Your task to perform on an android device: Add "logitech g933" to the cart on ebay.com, then select checkout. Image 0: 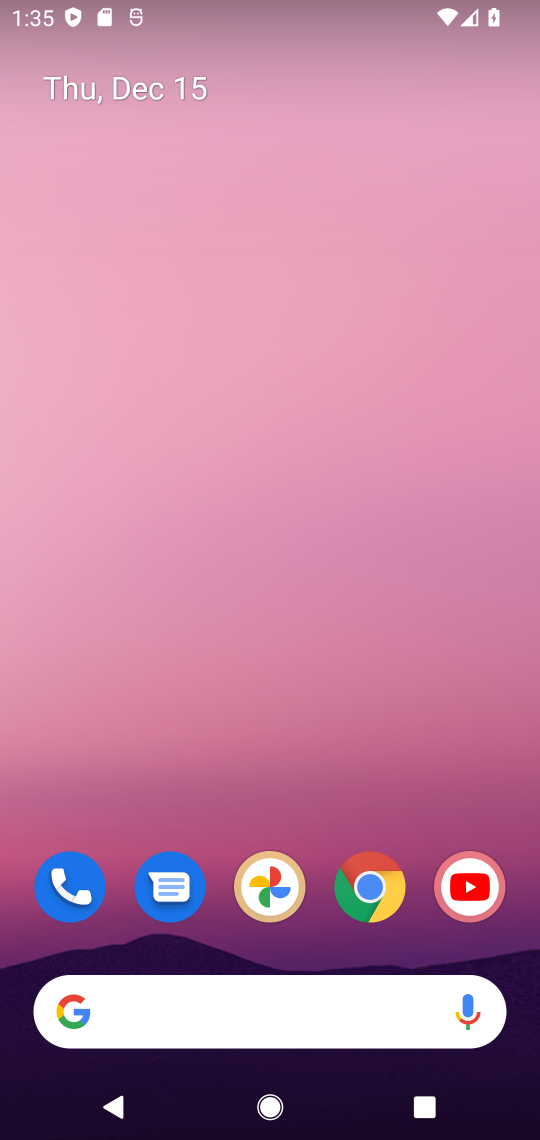
Step 0: click (381, 888)
Your task to perform on an android device: Add "logitech g933" to the cart on ebay.com, then select checkout. Image 1: 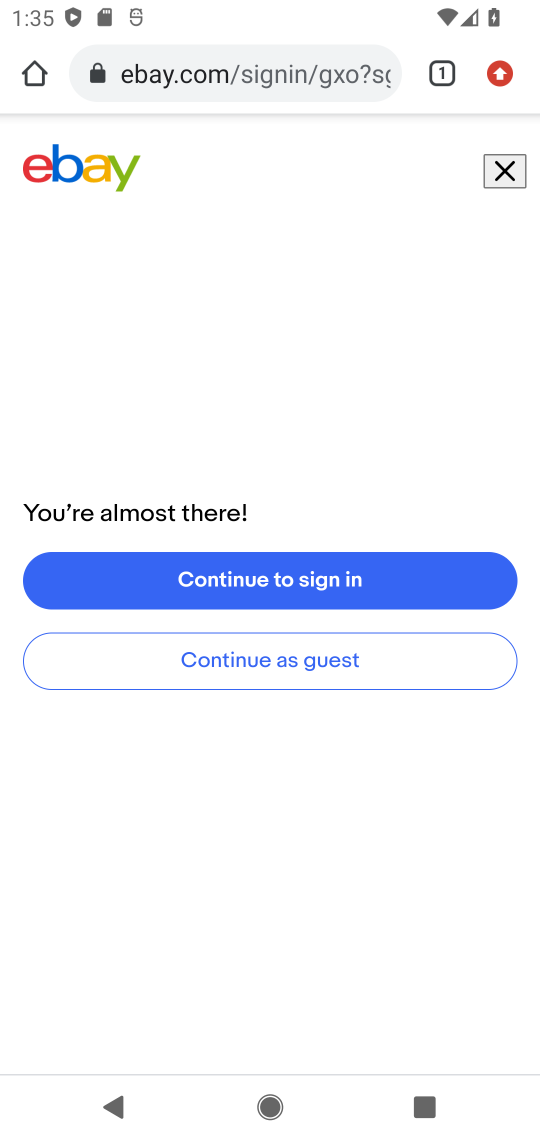
Step 1: click (503, 174)
Your task to perform on an android device: Add "logitech g933" to the cart on ebay.com, then select checkout. Image 2: 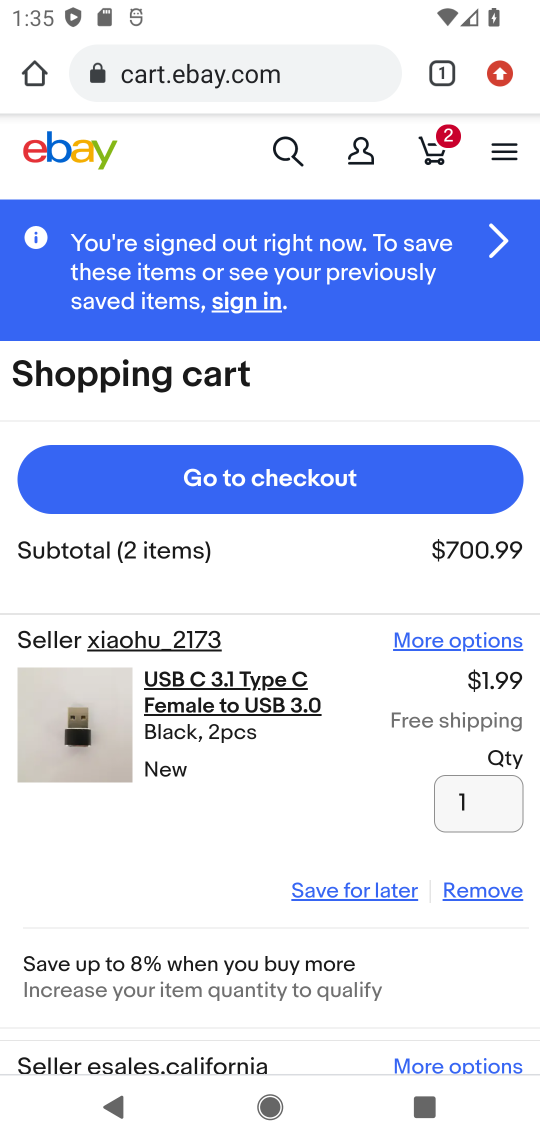
Step 2: click (291, 153)
Your task to perform on an android device: Add "logitech g933" to the cart on ebay.com, then select checkout. Image 3: 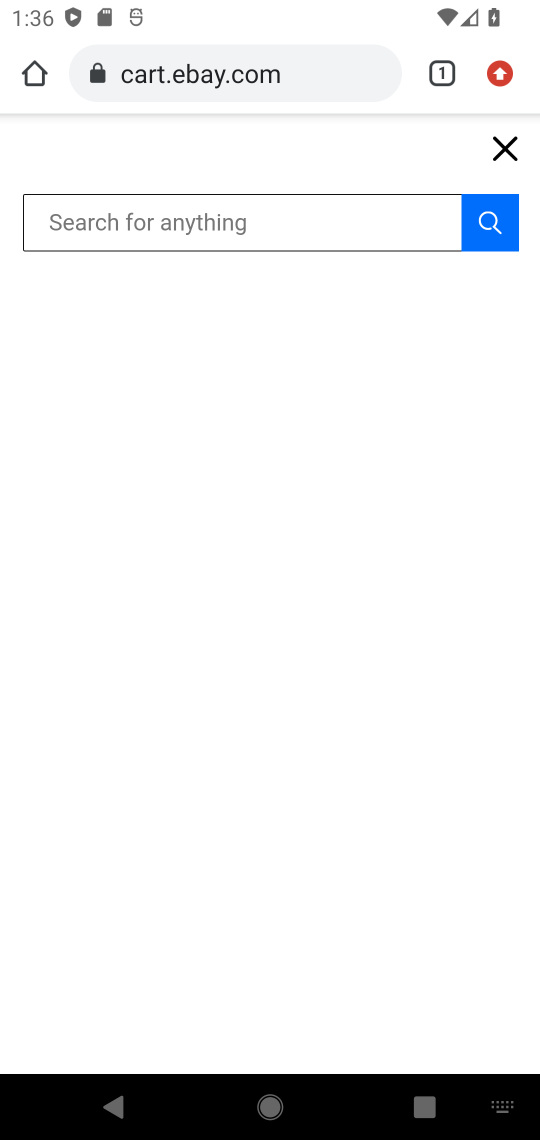
Step 3: type "logitech g933"
Your task to perform on an android device: Add "logitech g933" to the cart on ebay.com, then select checkout. Image 4: 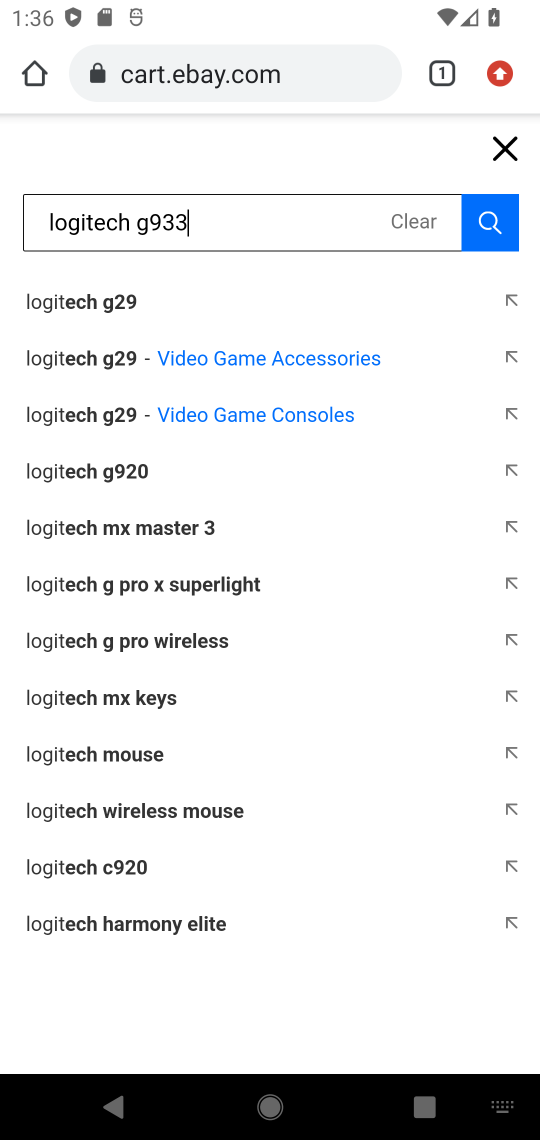
Step 4: click (492, 228)
Your task to perform on an android device: Add "logitech g933" to the cart on ebay.com, then select checkout. Image 5: 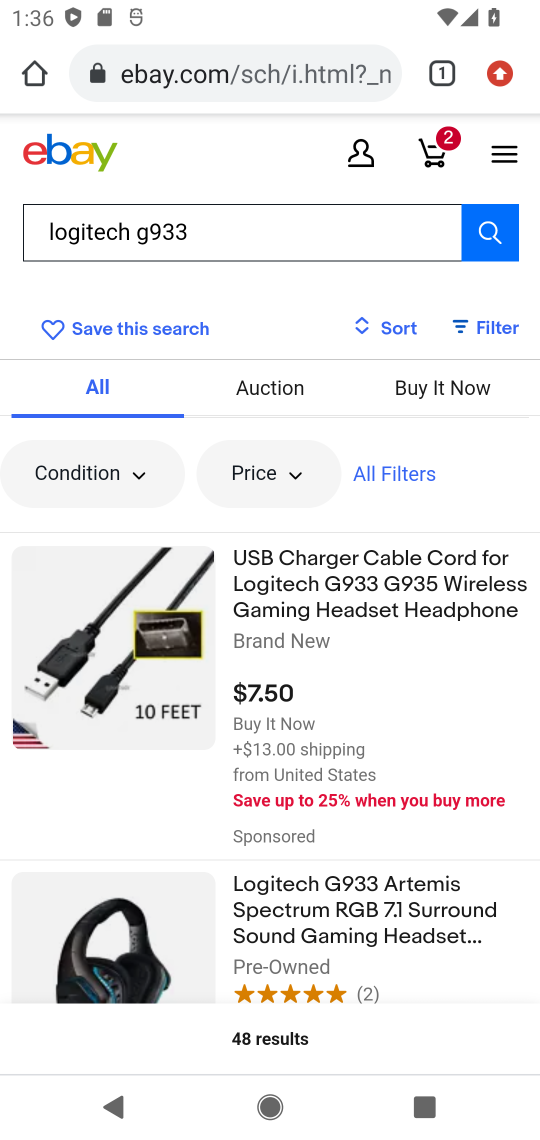
Step 5: click (275, 615)
Your task to perform on an android device: Add "logitech g933" to the cart on ebay.com, then select checkout. Image 6: 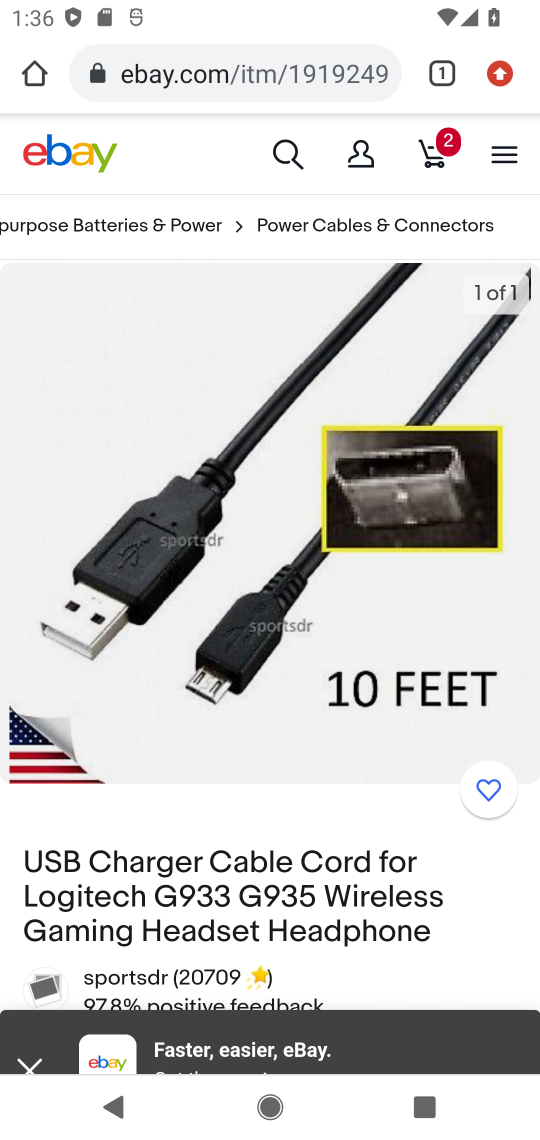
Step 6: drag from (230, 831) to (233, 346)
Your task to perform on an android device: Add "logitech g933" to the cart on ebay.com, then select checkout. Image 7: 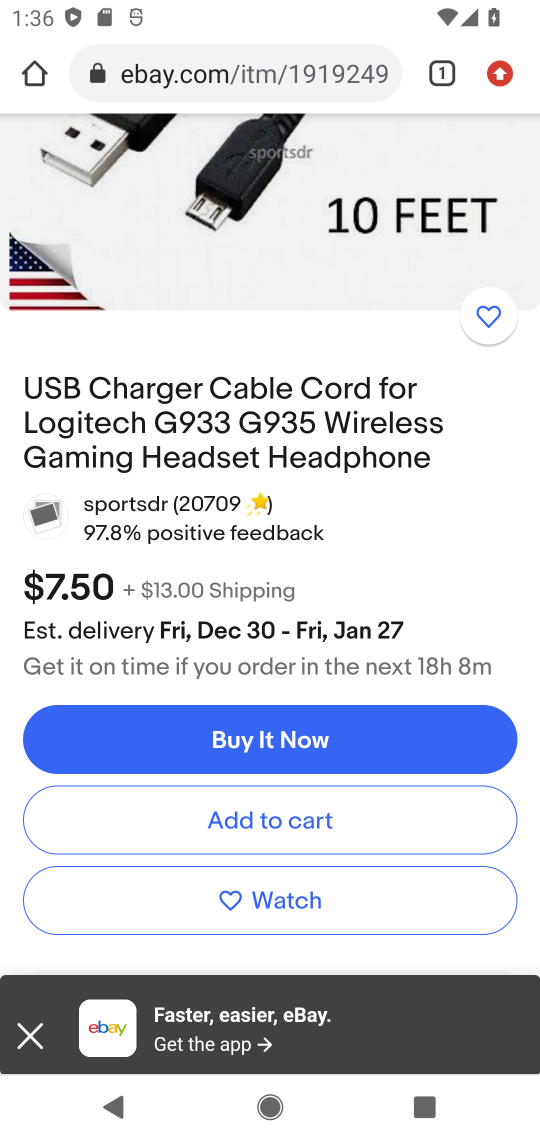
Step 7: click (219, 822)
Your task to perform on an android device: Add "logitech g933" to the cart on ebay.com, then select checkout. Image 8: 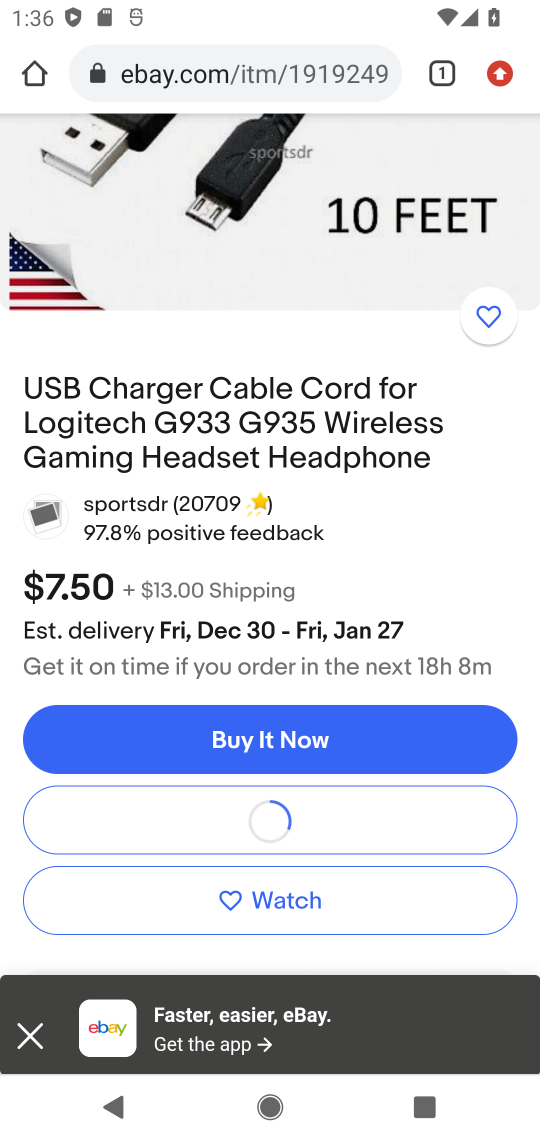
Step 8: drag from (420, 816) to (435, 634)
Your task to perform on an android device: Add "logitech g933" to the cart on ebay.com, then select checkout. Image 9: 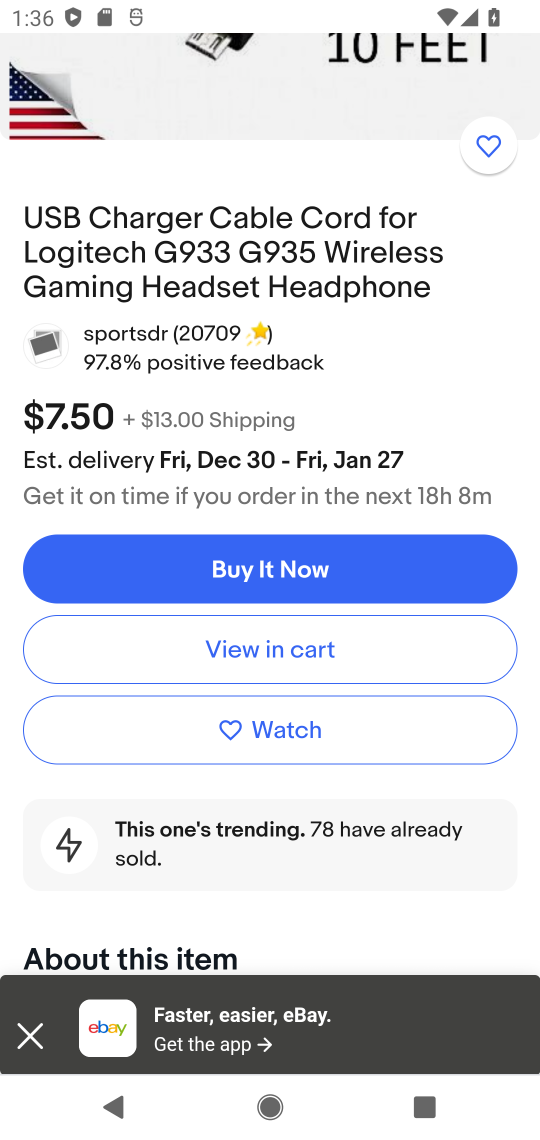
Step 9: click (291, 652)
Your task to perform on an android device: Add "logitech g933" to the cart on ebay.com, then select checkout. Image 10: 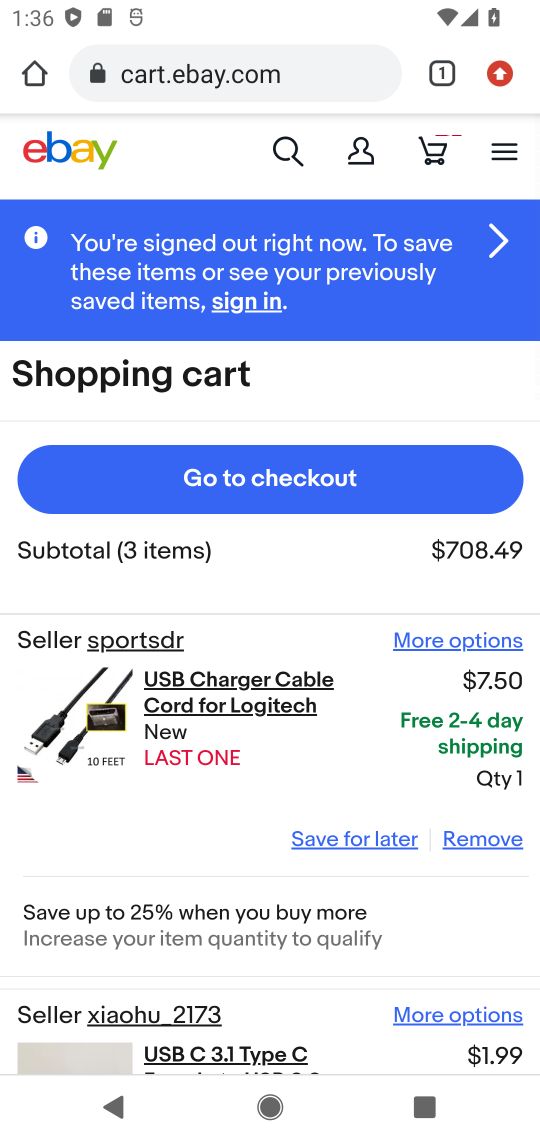
Step 10: click (292, 474)
Your task to perform on an android device: Add "logitech g933" to the cart on ebay.com, then select checkout. Image 11: 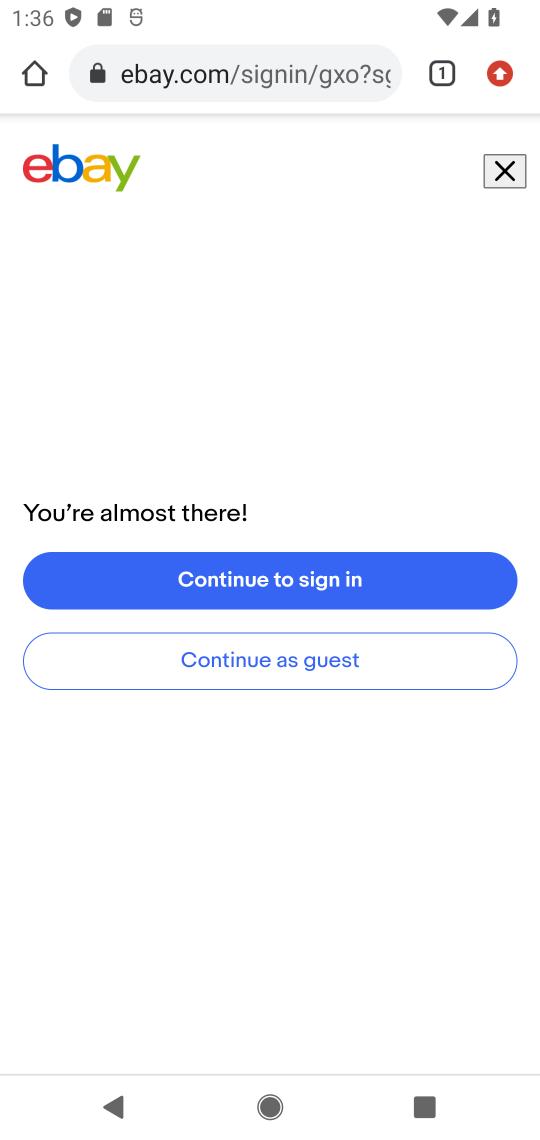
Step 11: task complete